Your task to perform on an android device: open wifi settings Image 0: 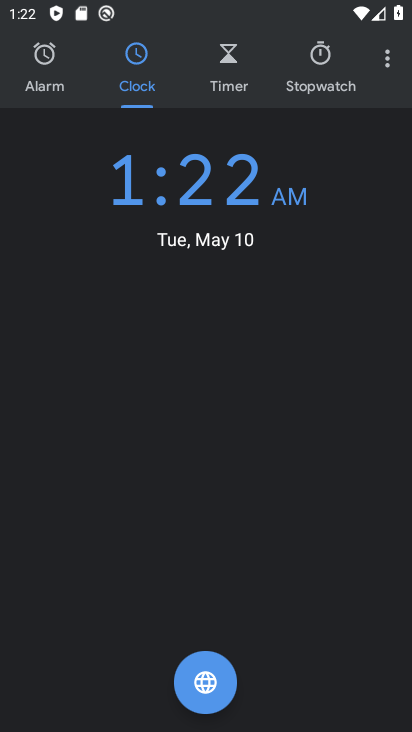
Step 0: press home button
Your task to perform on an android device: open wifi settings Image 1: 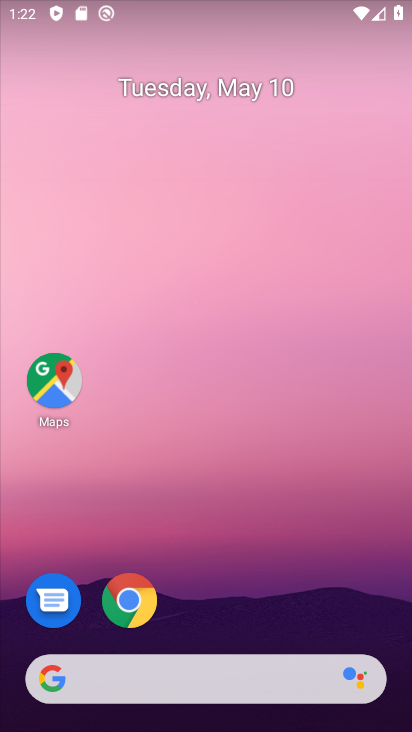
Step 1: drag from (212, 657) to (121, 4)
Your task to perform on an android device: open wifi settings Image 2: 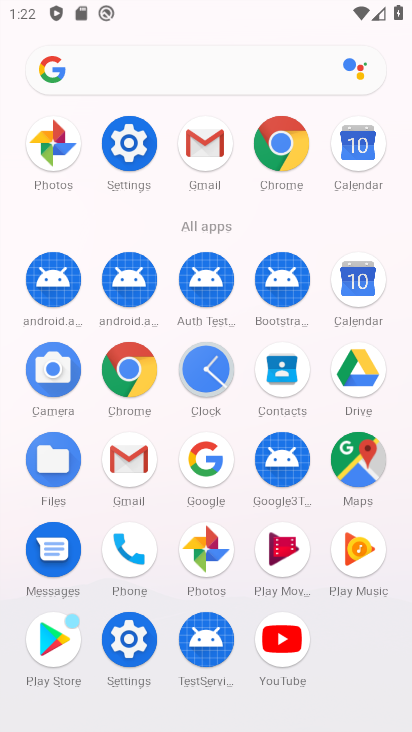
Step 2: click (139, 146)
Your task to perform on an android device: open wifi settings Image 3: 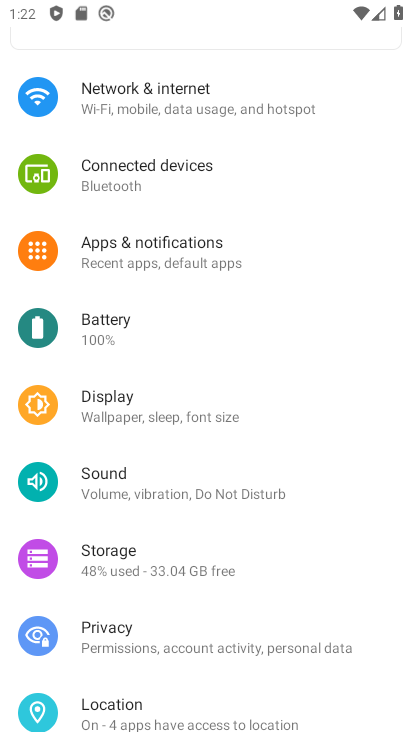
Step 3: drag from (162, 152) to (162, 531)
Your task to perform on an android device: open wifi settings Image 4: 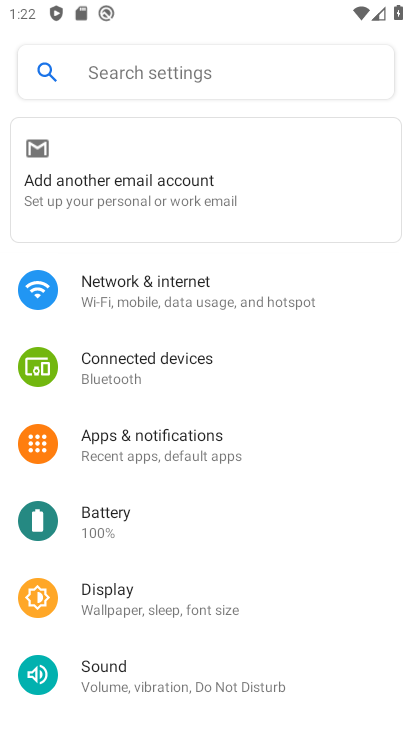
Step 4: click (124, 298)
Your task to perform on an android device: open wifi settings Image 5: 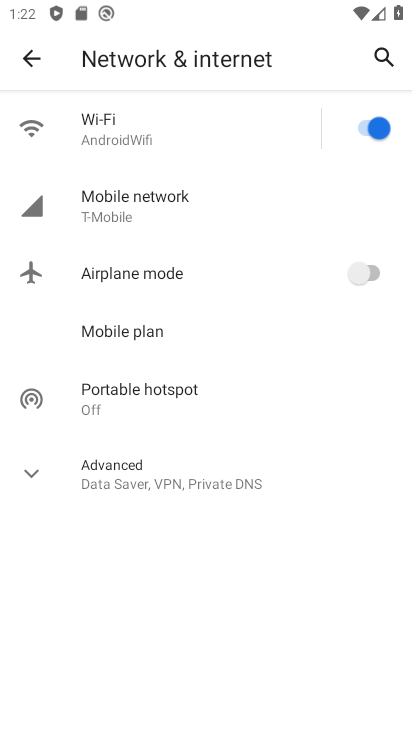
Step 5: click (116, 144)
Your task to perform on an android device: open wifi settings Image 6: 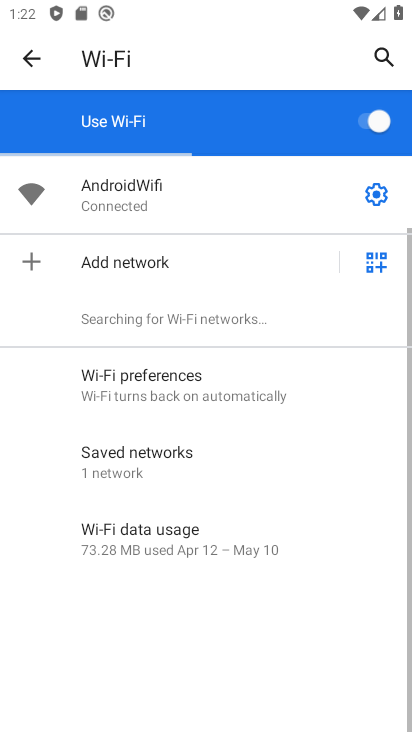
Step 6: task complete